Your task to perform on an android device: Open eBay Image 0: 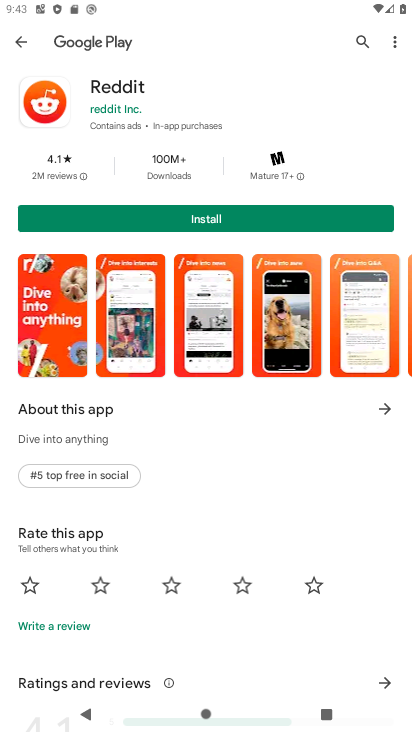
Step 0: press home button
Your task to perform on an android device: Open eBay Image 1: 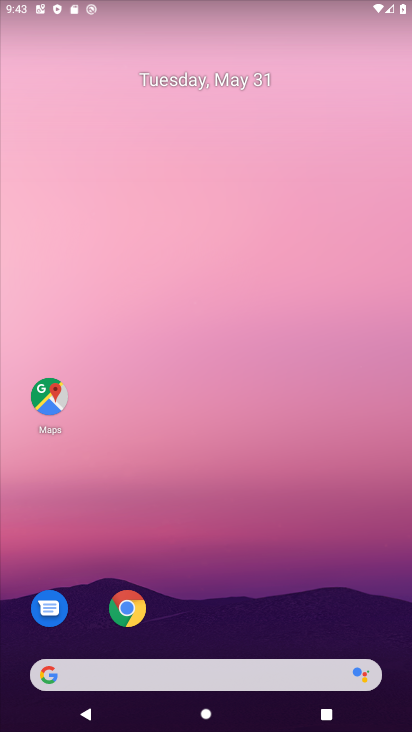
Step 1: drag from (278, 594) to (253, 3)
Your task to perform on an android device: Open eBay Image 2: 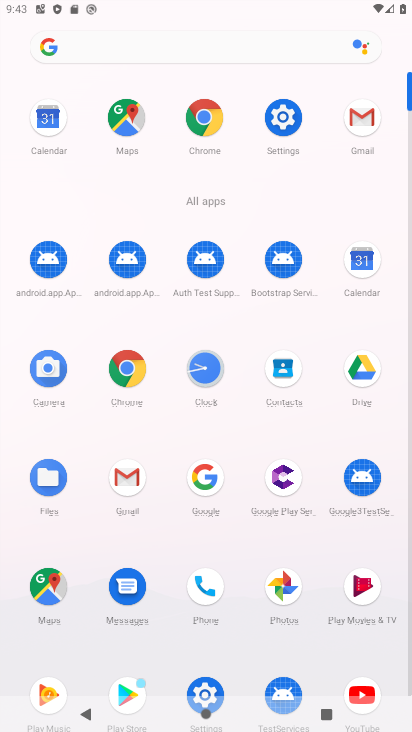
Step 2: click (222, 134)
Your task to perform on an android device: Open eBay Image 3: 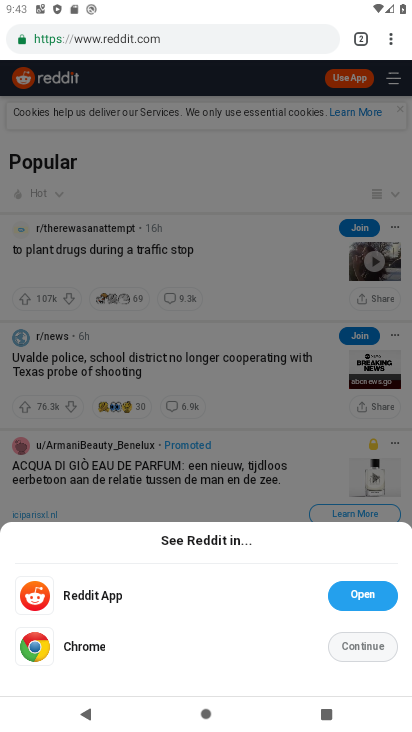
Step 3: task complete